Your task to perform on an android device: open a bookmark in the chrome app Image 0: 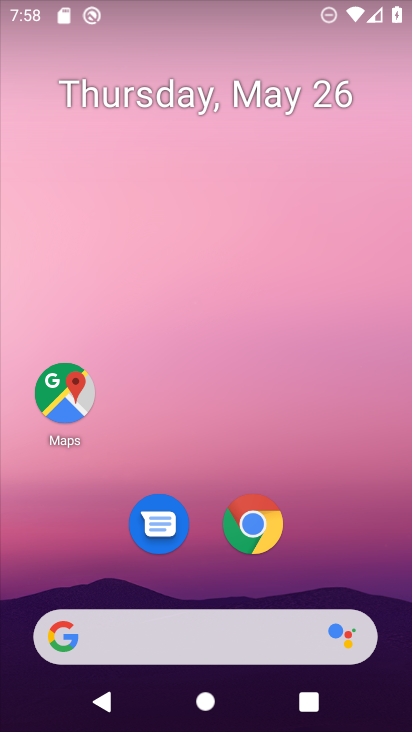
Step 0: click (266, 521)
Your task to perform on an android device: open a bookmark in the chrome app Image 1: 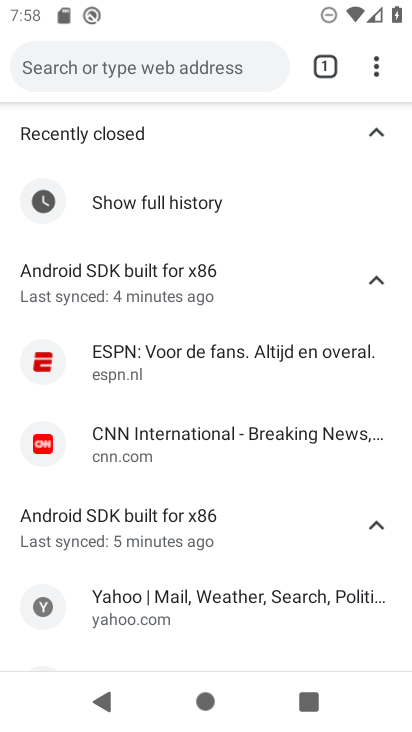
Step 1: click (378, 64)
Your task to perform on an android device: open a bookmark in the chrome app Image 2: 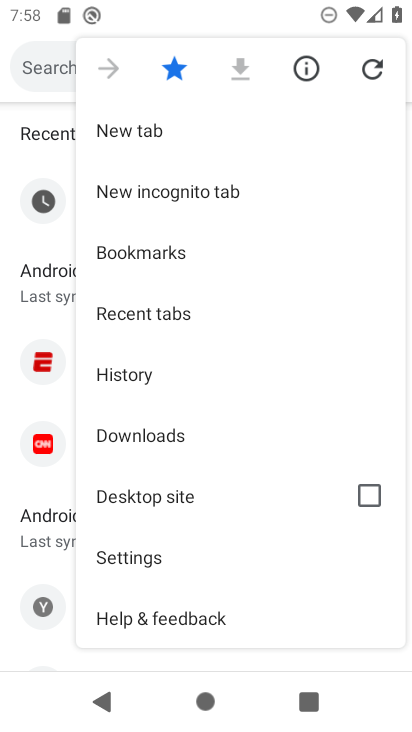
Step 2: click (188, 245)
Your task to perform on an android device: open a bookmark in the chrome app Image 3: 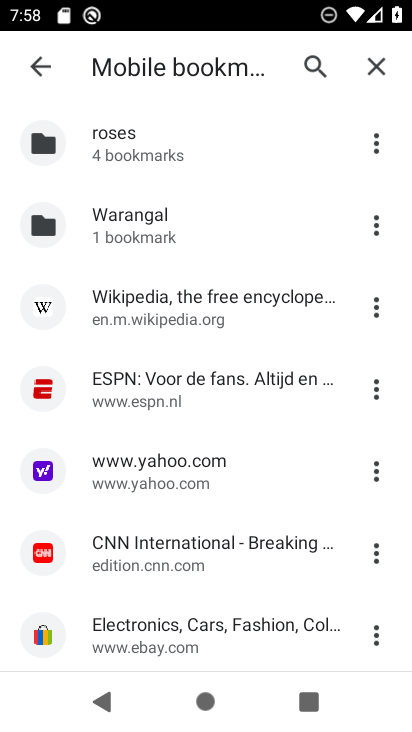
Step 3: drag from (170, 599) to (224, 116)
Your task to perform on an android device: open a bookmark in the chrome app Image 4: 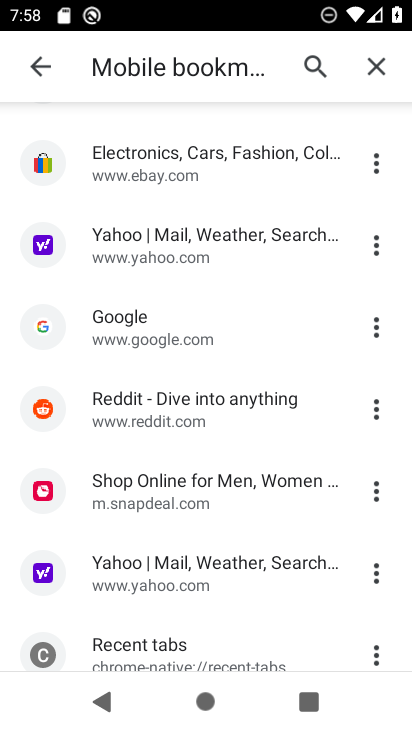
Step 4: click (164, 560)
Your task to perform on an android device: open a bookmark in the chrome app Image 5: 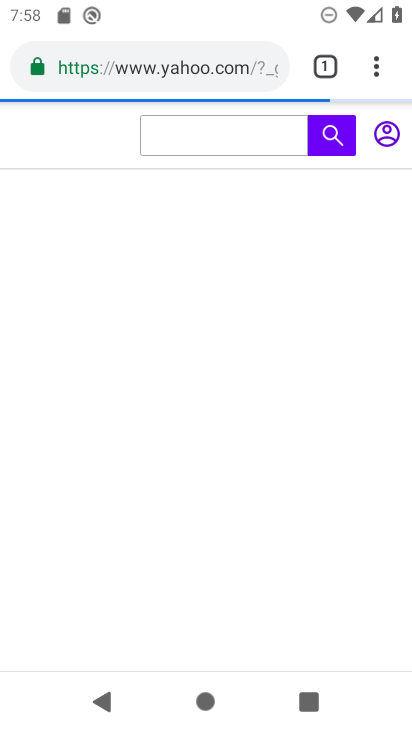
Step 5: task complete